Your task to perform on an android device: refresh tabs in the chrome app Image 0: 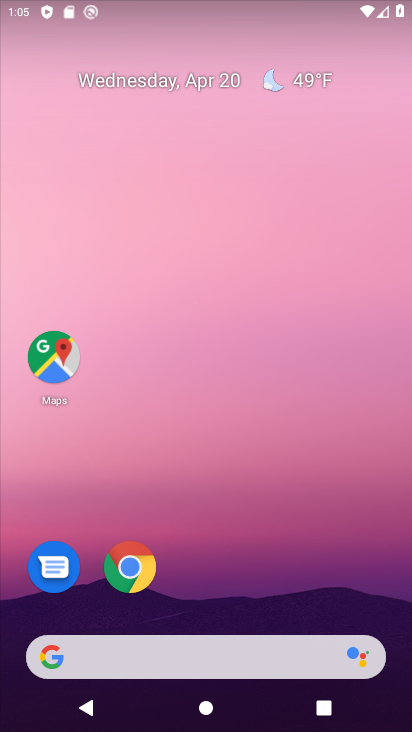
Step 0: click (130, 567)
Your task to perform on an android device: refresh tabs in the chrome app Image 1: 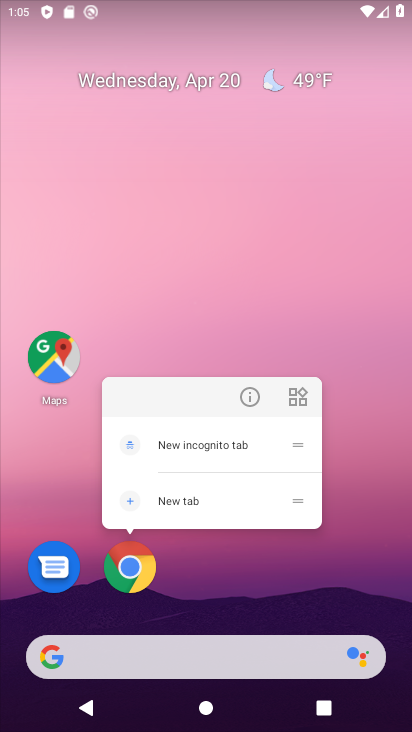
Step 1: click (130, 567)
Your task to perform on an android device: refresh tabs in the chrome app Image 2: 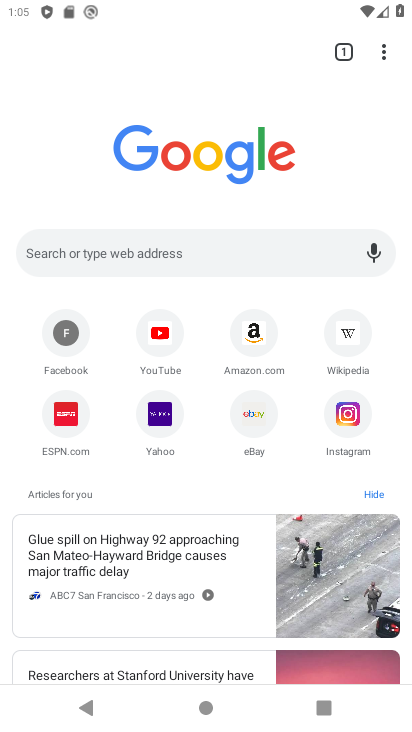
Step 2: click (385, 61)
Your task to perform on an android device: refresh tabs in the chrome app Image 3: 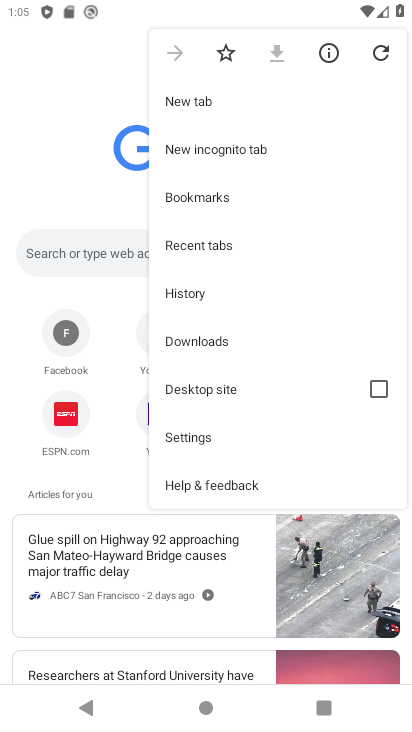
Step 3: click (380, 54)
Your task to perform on an android device: refresh tabs in the chrome app Image 4: 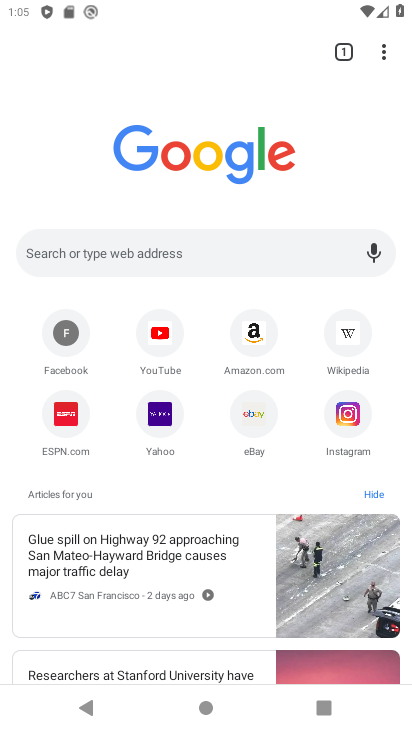
Step 4: task complete